Your task to perform on an android device: What's on my calendar for the rest of the month? Image 0: 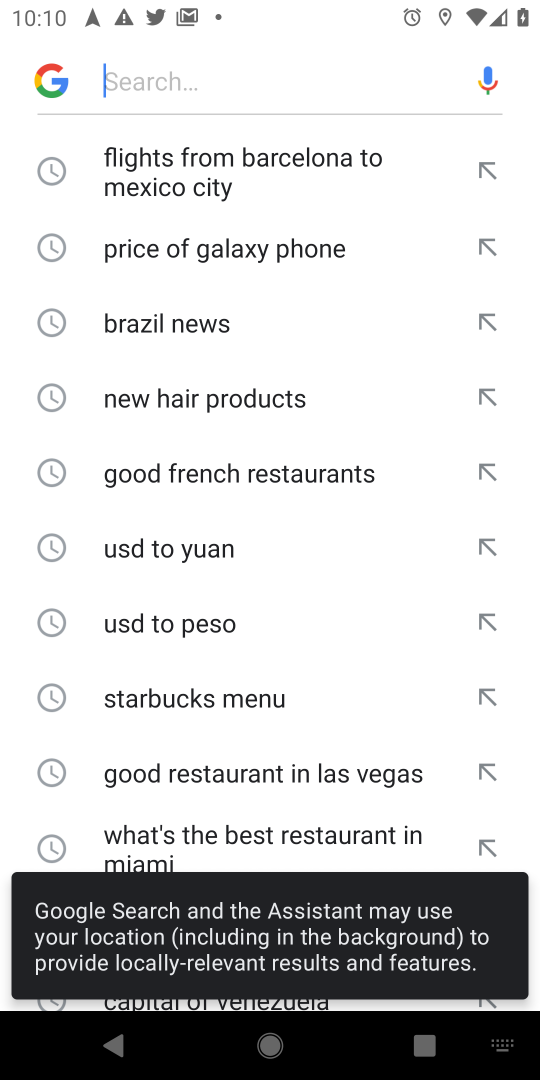
Step 0: press home button
Your task to perform on an android device: What's on my calendar for the rest of the month? Image 1: 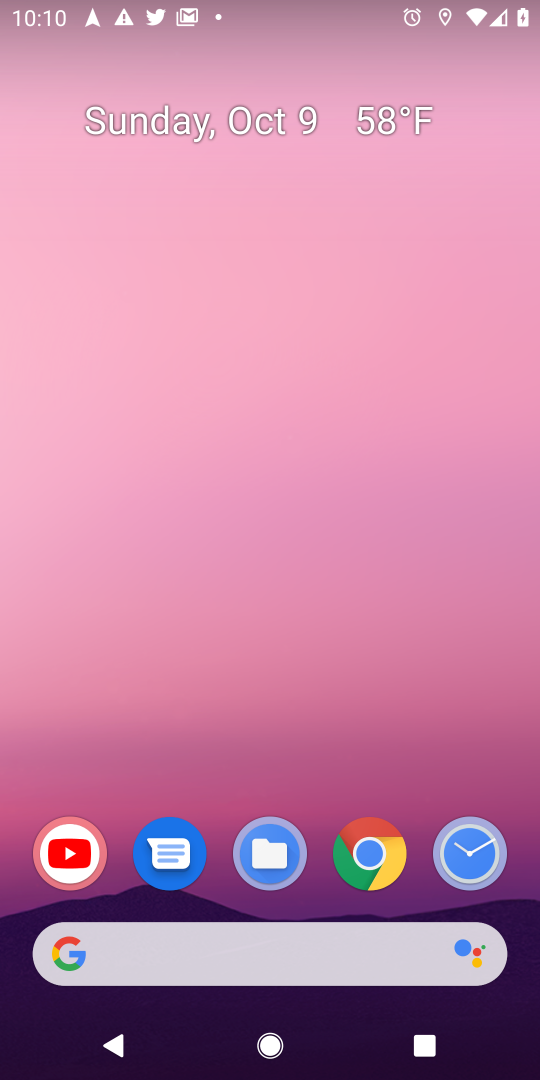
Step 1: drag from (439, 709) to (442, 86)
Your task to perform on an android device: What's on my calendar for the rest of the month? Image 2: 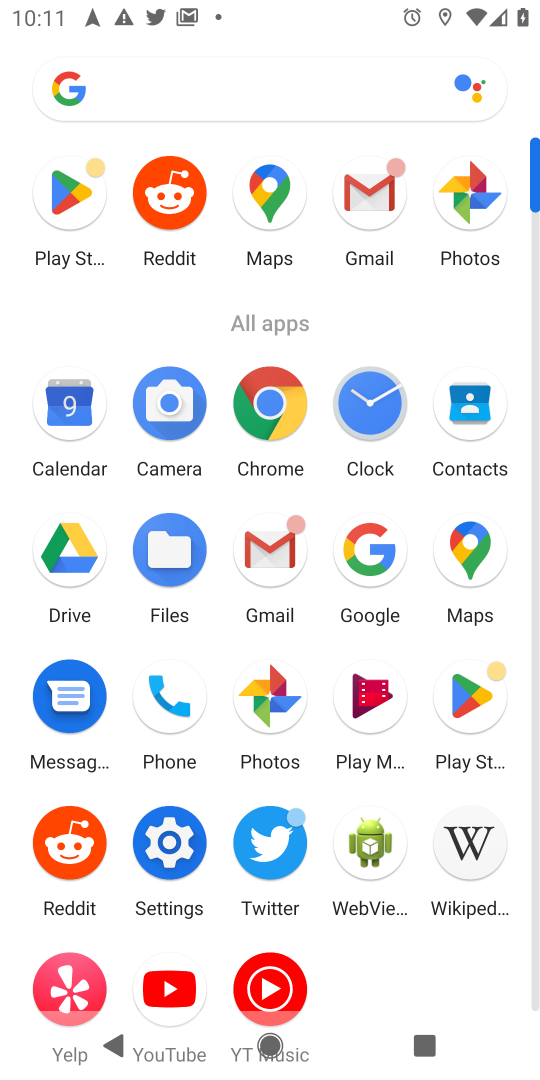
Step 2: click (42, 430)
Your task to perform on an android device: What's on my calendar for the rest of the month? Image 3: 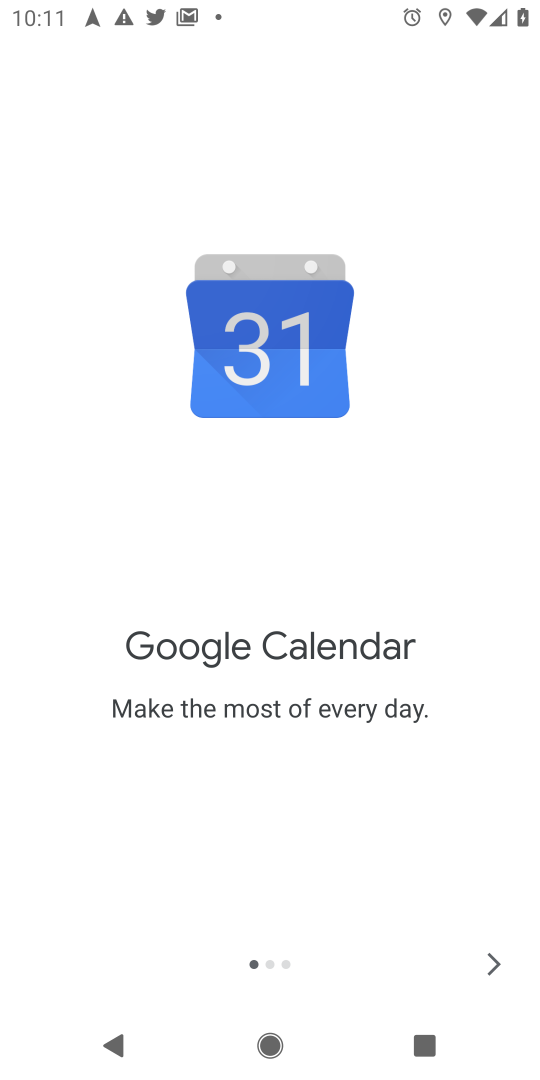
Step 3: click (490, 969)
Your task to perform on an android device: What's on my calendar for the rest of the month? Image 4: 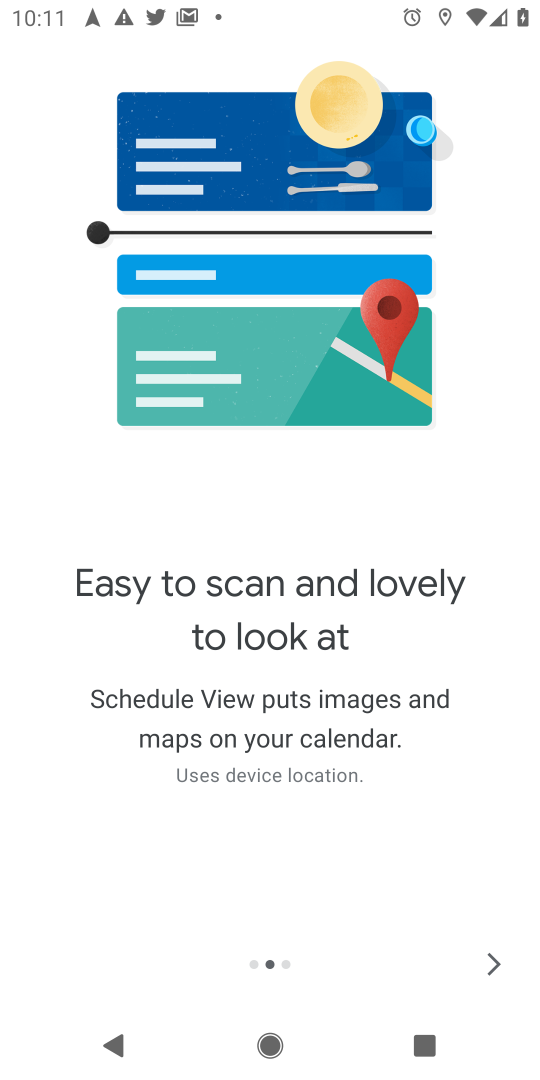
Step 4: click (490, 969)
Your task to perform on an android device: What's on my calendar for the rest of the month? Image 5: 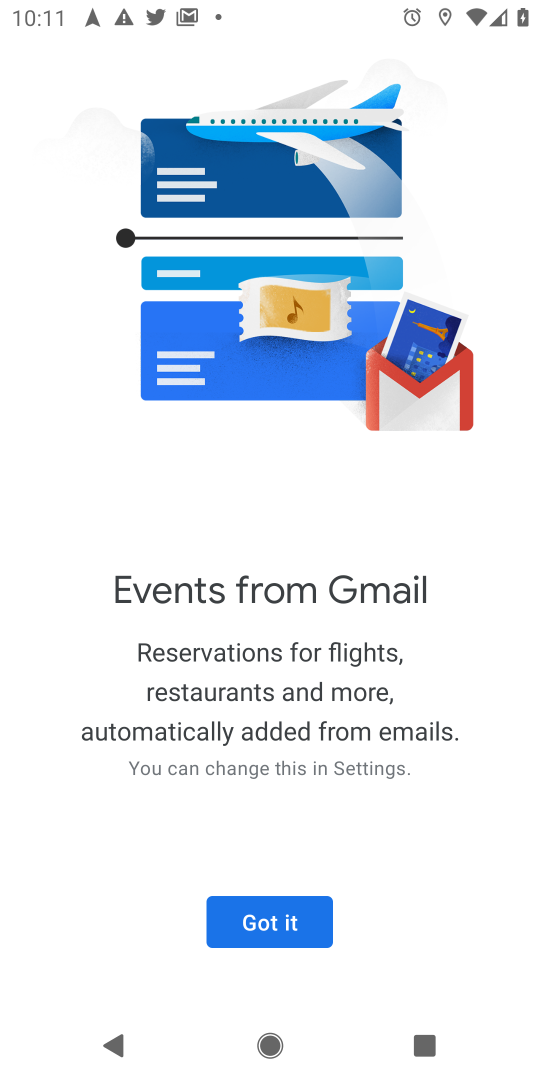
Step 5: click (273, 924)
Your task to perform on an android device: What's on my calendar for the rest of the month? Image 6: 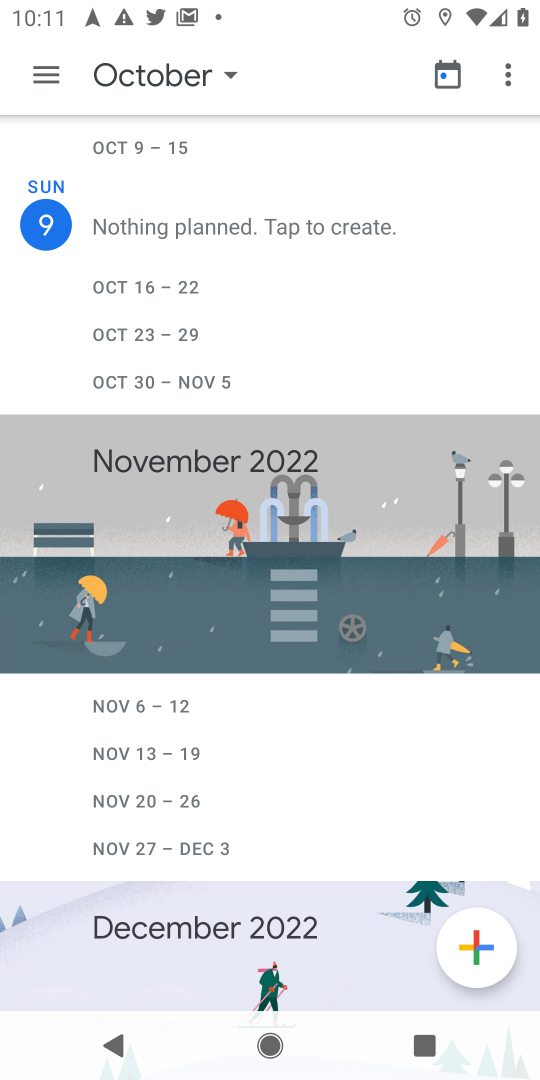
Step 6: task complete